Your task to perform on an android device: open chrome and create a bookmark for the current page Image 0: 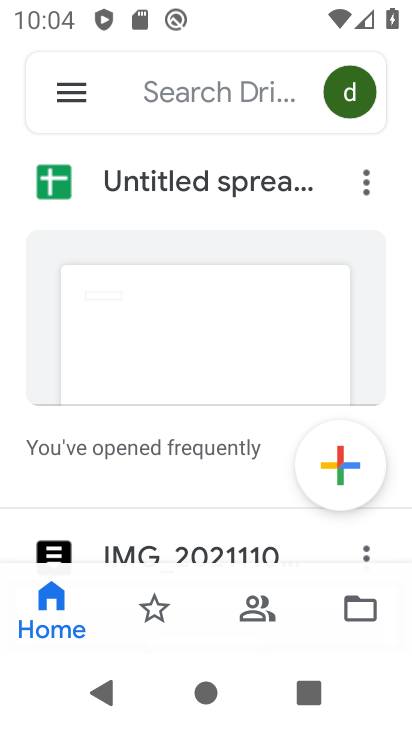
Step 0: press back button
Your task to perform on an android device: open chrome and create a bookmark for the current page Image 1: 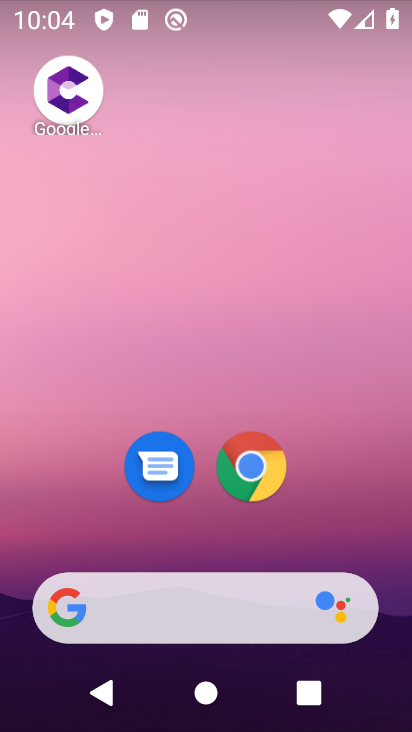
Step 1: click (272, 462)
Your task to perform on an android device: open chrome and create a bookmark for the current page Image 2: 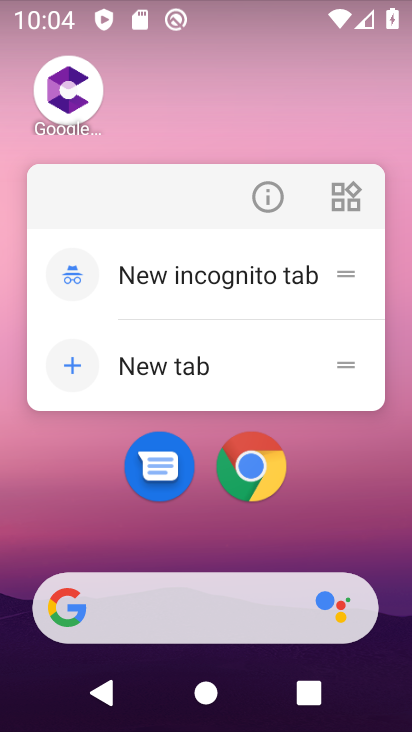
Step 2: click (254, 461)
Your task to perform on an android device: open chrome and create a bookmark for the current page Image 3: 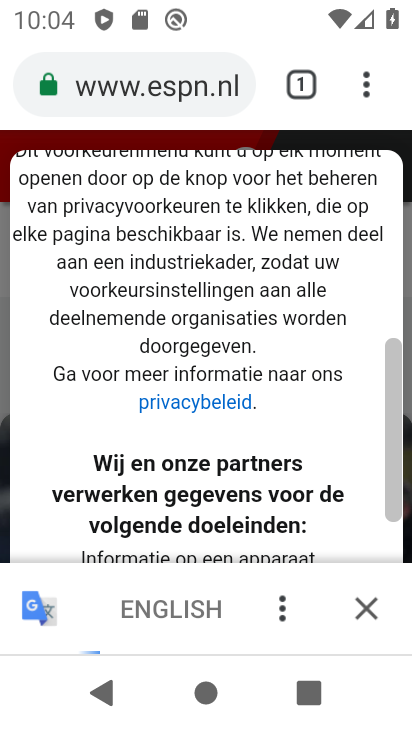
Step 3: task complete